Your task to perform on an android device: Open accessibility settings Image 0: 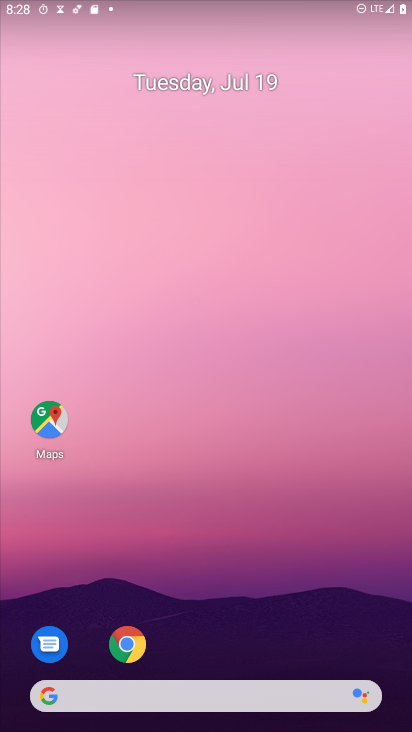
Step 0: drag from (79, 659) to (264, 239)
Your task to perform on an android device: Open accessibility settings Image 1: 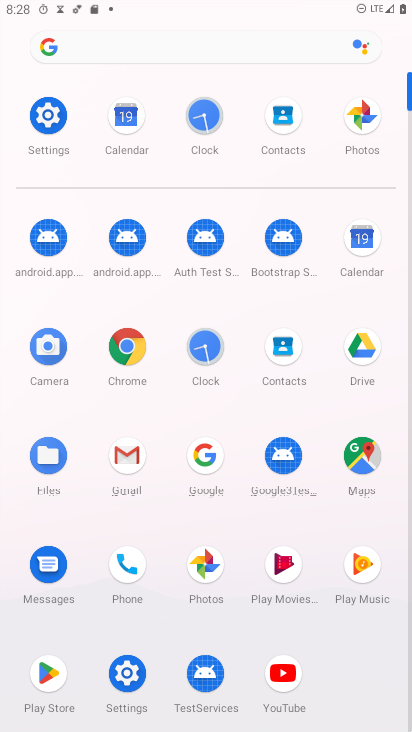
Step 1: click (117, 674)
Your task to perform on an android device: Open accessibility settings Image 2: 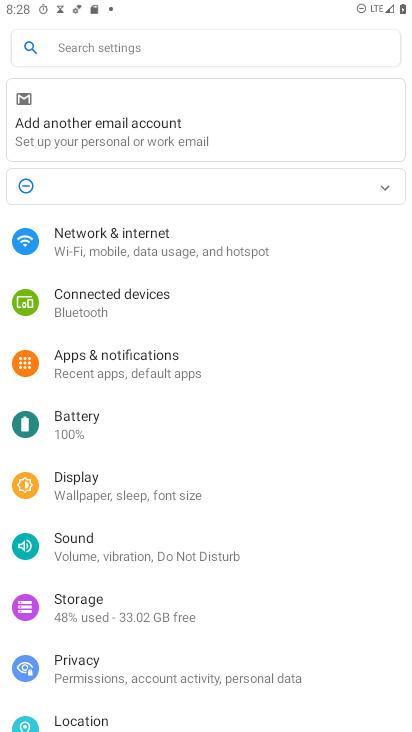
Step 2: drag from (262, 318) to (259, 5)
Your task to perform on an android device: Open accessibility settings Image 3: 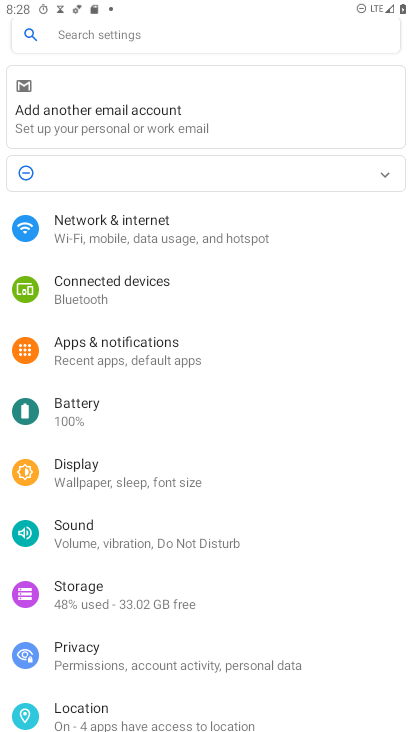
Step 3: drag from (261, 698) to (353, 245)
Your task to perform on an android device: Open accessibility settings Image 4: 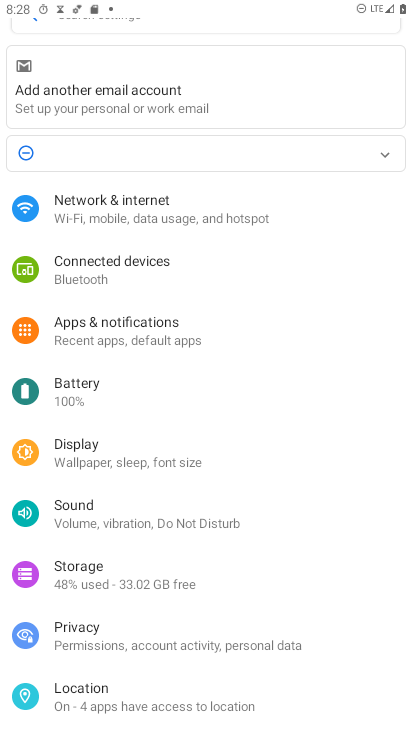
Step 4: drag from (353, 666) to (387, 48)
Your task to perform on an android device: Open accessibility settings Image 5: 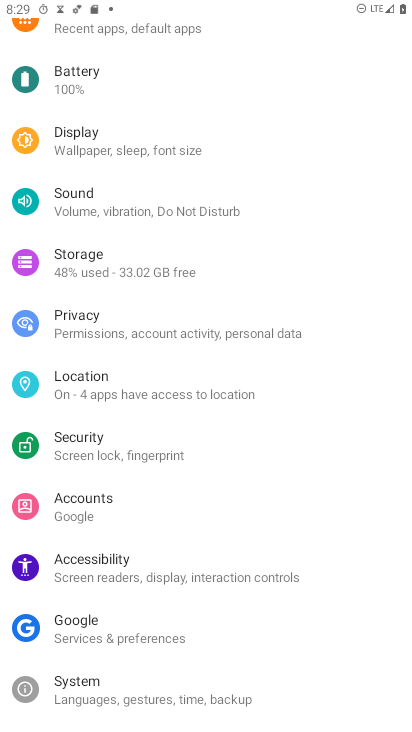
Step 5: drag from (189, 179) to (152, 677)
Your task to perform on an android device: Open accessibility settings Image 6: 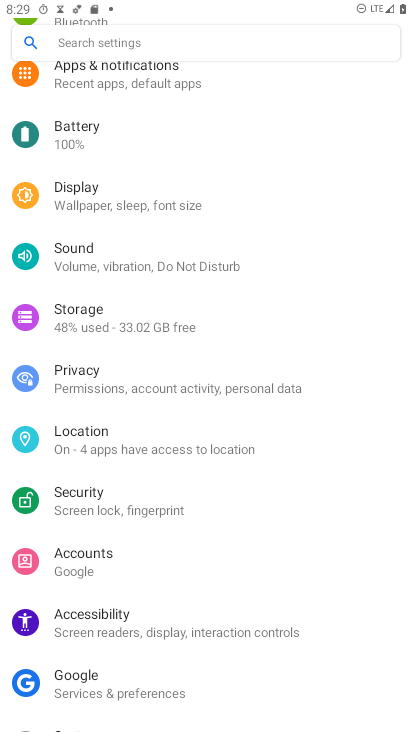
Step 6: click (136, 627)
Your task to perform on an android device: Open accessibility settings Image 7: 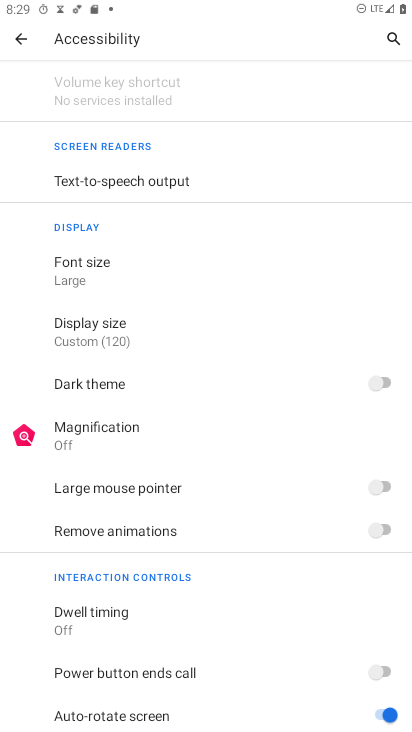
Step 7: task complete